Your task to perform on an android device: delete browsing data in the chrome app Image 0: 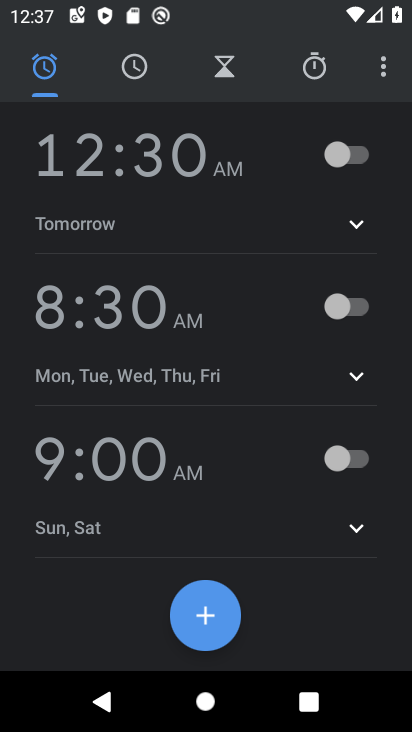
Step 0: press home button
Your task to perform on an android device: delete browsing data in the chrome app Image 1: 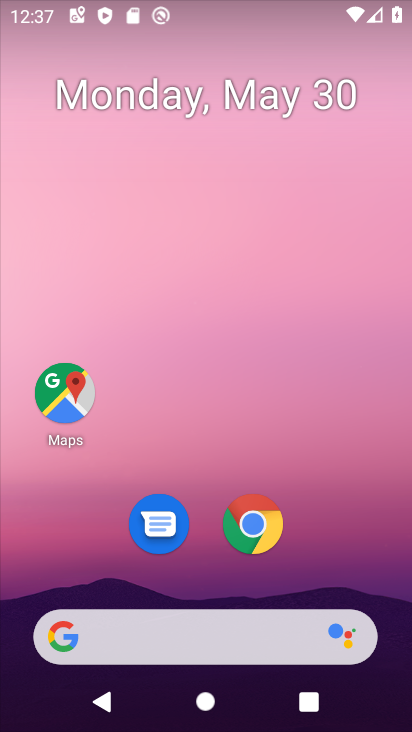
Step 1: click (260, 521)
Your task to perform on an android device: delete browsing data in the chrome app Image 2: 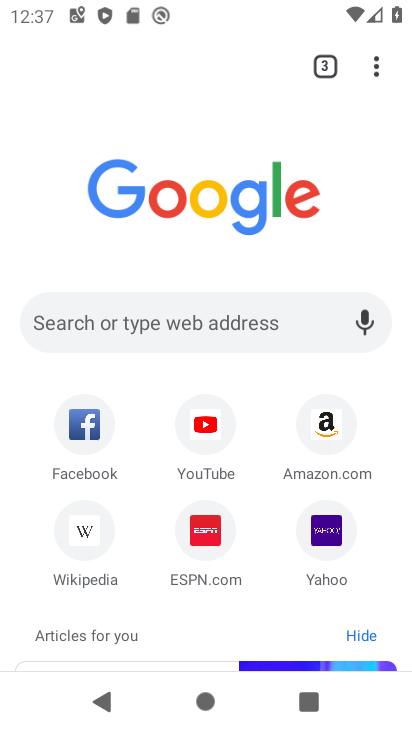
Step 2: click (374, 65)
Your task to perform on an android device: delete browsing data in the chrome app Image 3: 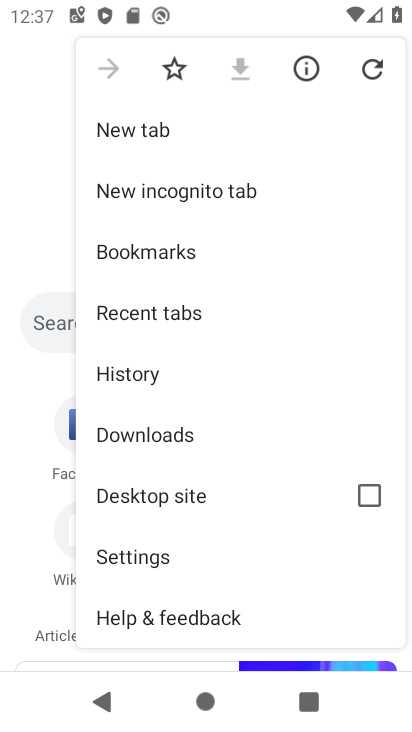
Step 3: click (154, 376)
Your task to perform on an android device: delete browsing data in the chrome app Image 4: 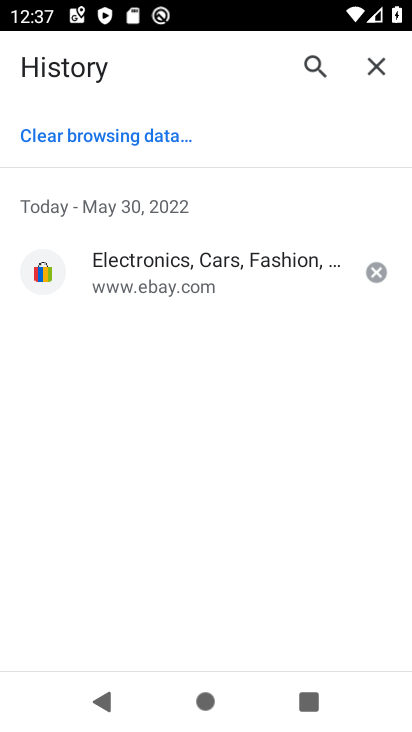
Step 4: click (133, 127)
Your task to perform on an android device: delete browsing data in the chrome app Image 5: 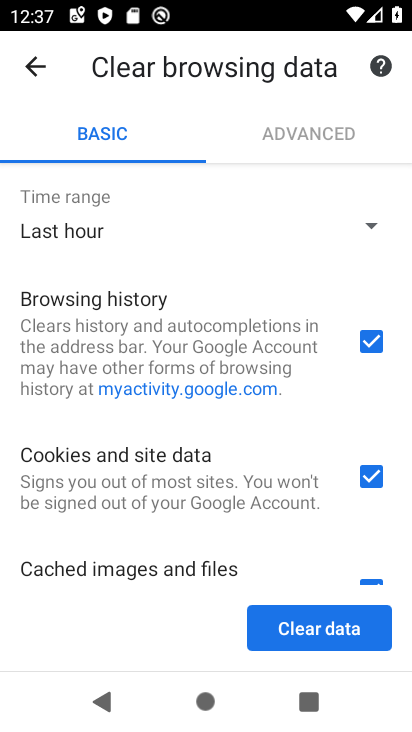
Step 5: click (340, 620)
Your task to perform on an android device: delete browsing data in the chrome app Image 6: 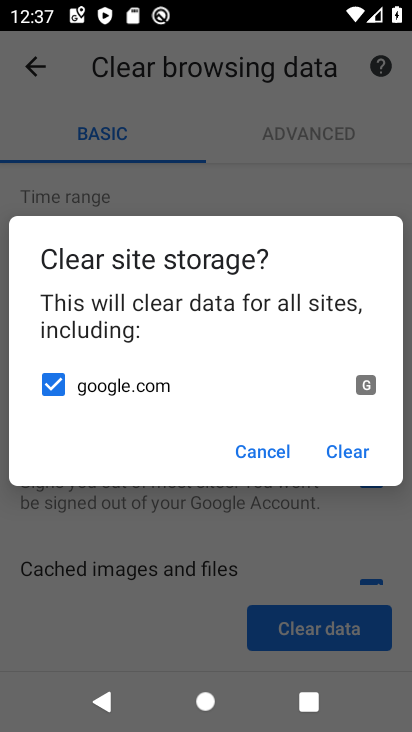
Step 6: click (354, 442)
Your task to perform on an android device: delete browsing data in the chrome app Image 7: 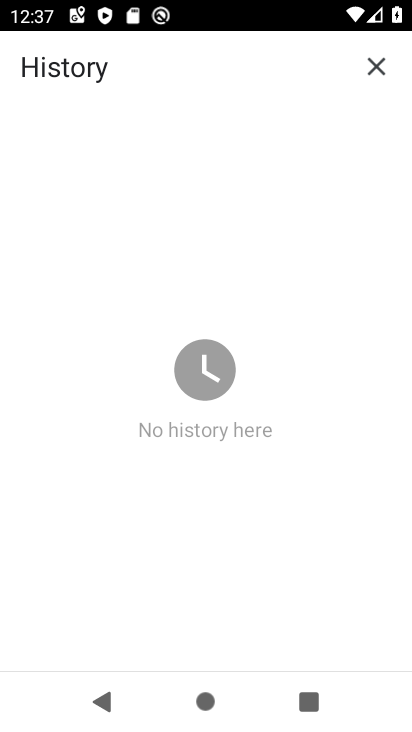
Step 7: task complete